Your task to perform on an android device: Show me popular games on the Play Store Image 0: 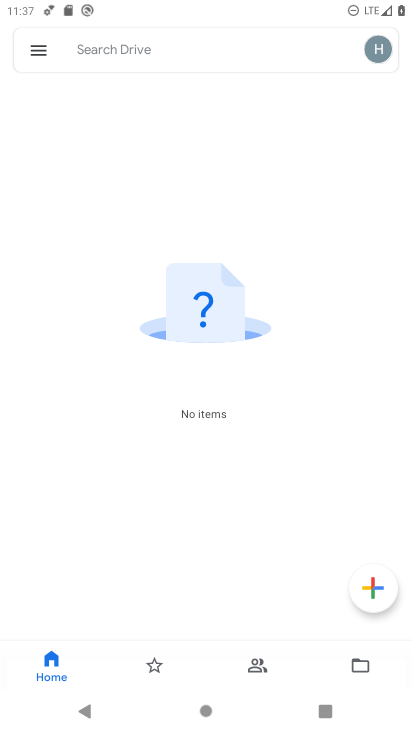
Step 0: press home button
Your task to perform on an android device: Show me popular games on the Play Store Image 1: 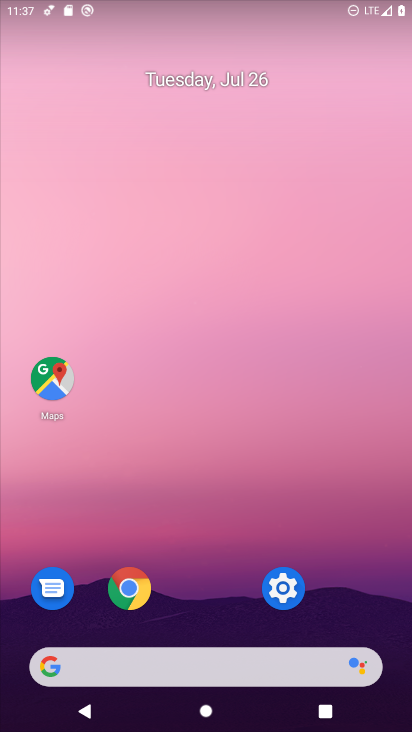
Step 1: drag from (297, 681) to (186, 122)
Your task to perform on an android device: Show me popular games on the Play Store Image 2: 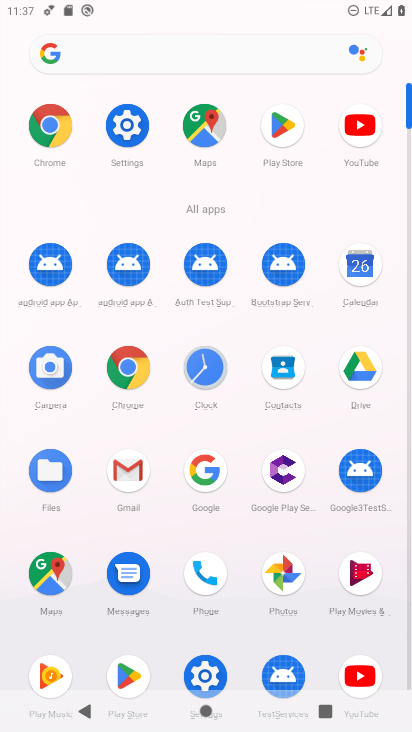
Step 2: click (277, 128)
Your task to perform on an android device: Show me popular games on the Play Store Image 3: 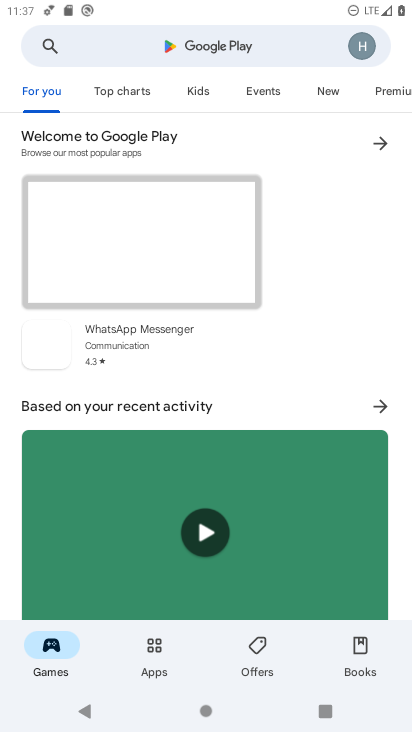
Step 3: click (177, 51)
Your task to perform on an android device: Show me popular games on the Play Store Image 4: 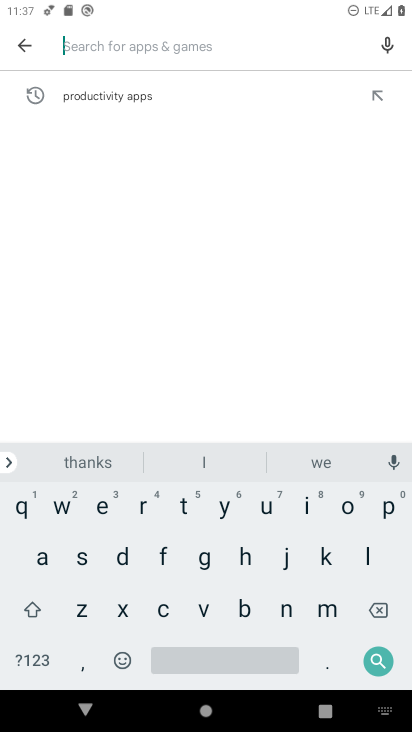
Step 4: click (392, 514)
Your task to perform on an android device: Show me popular games on the Play Store Image 5: 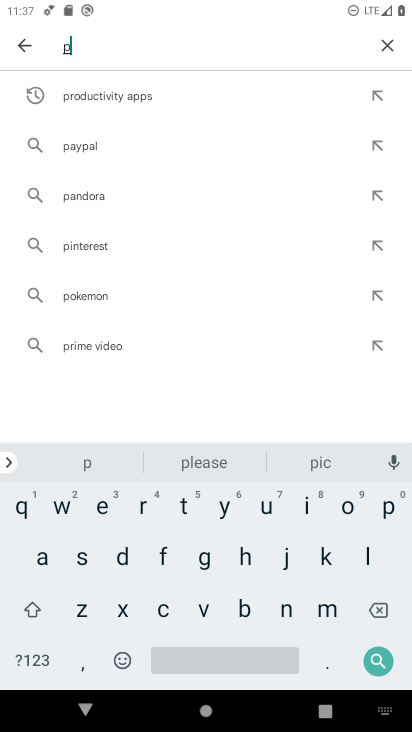
Step 5: click (349, 507)
Your task to perform on an android device: Show me popular games on the Play Store Image 6: 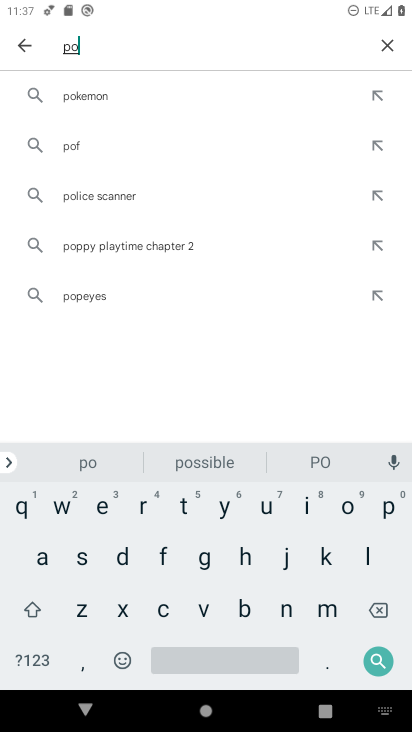
Step 6: click (388, 512)
Your task to perform on an android device: Show me popular games on the Play Store Image 7: 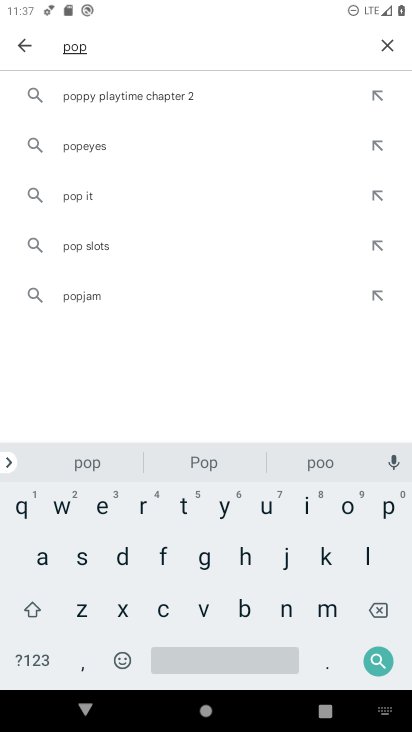
Step 7: click (265, 507)
Your task to perform on an android device: Show me popular games on the Play Store Image 8: 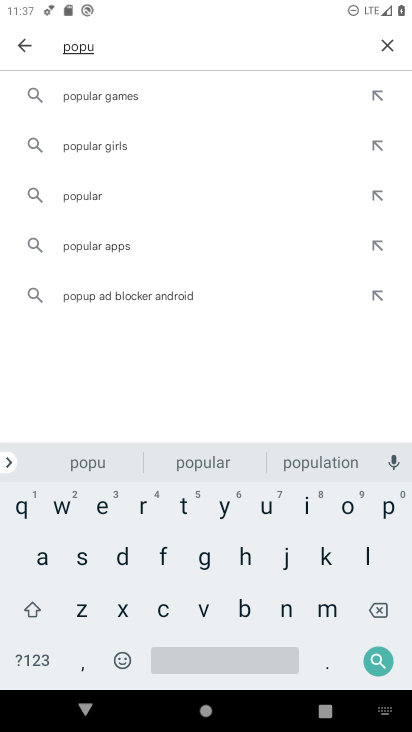
Step 8: click (102, 100)
Your task to perform on an android device: Show me popular games on the Play Store Image 9: 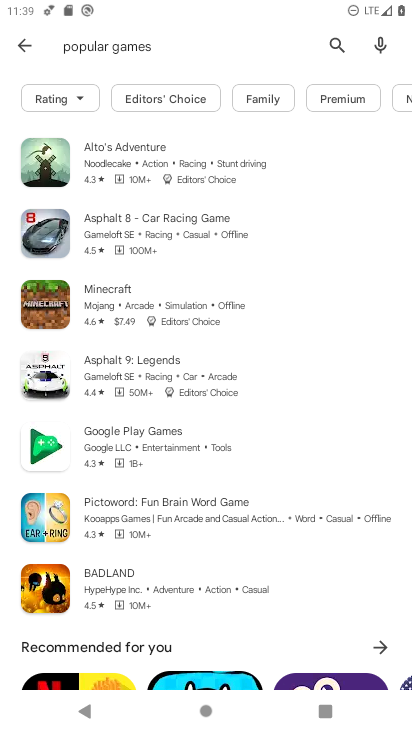
Step 9: task complete